Your task to perform on an android device: Open Google Image 0: 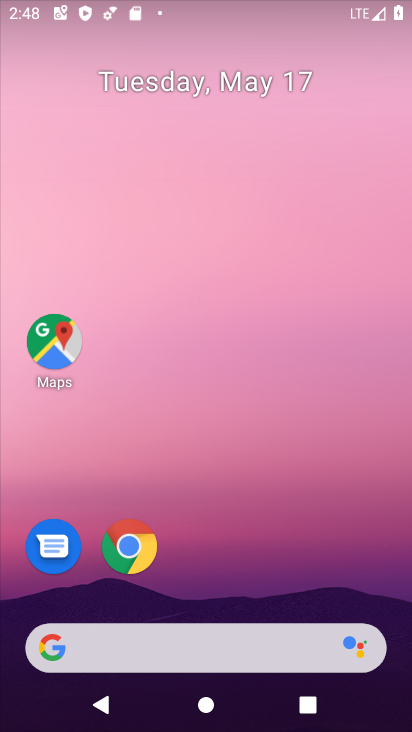
Step 0: press home button
Your task to perform on an android device: Open Google Image 1: 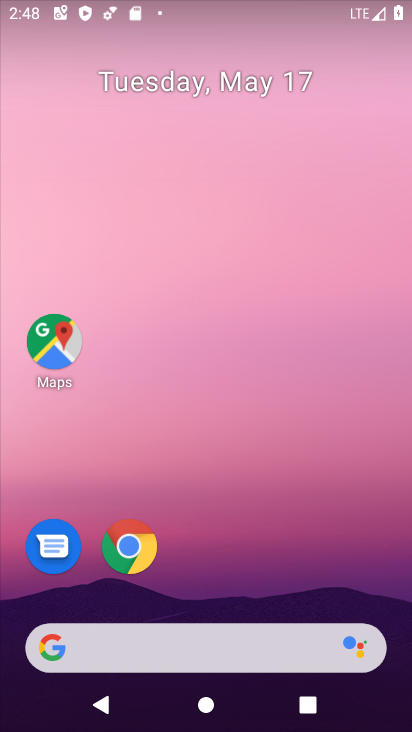
Step 1: click (224, 588)
Your task to perform on an android device: Open Google Image 2: 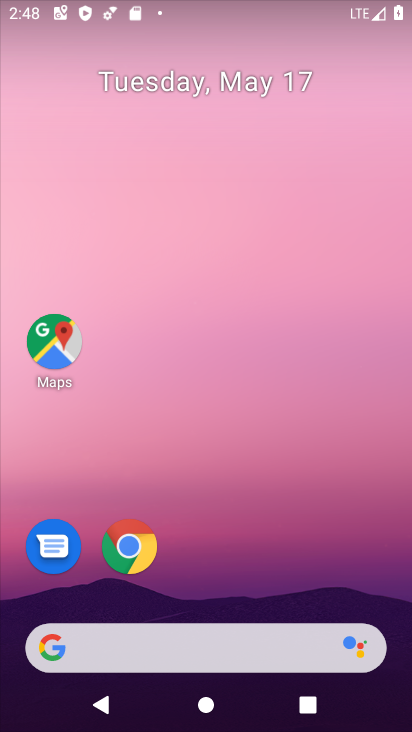
Step 2: drag from (224, 588) to (255, 164)
Your task to perform on an android device: Open Google Image 3: 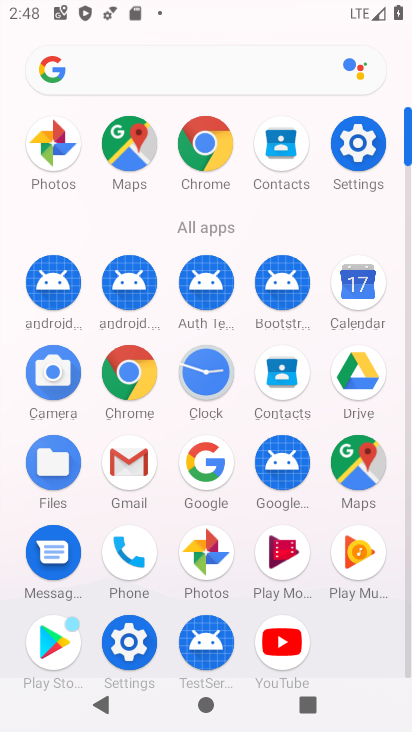
Step 3: click (195, 446)
Your task to perform on an android device: Open Google Image 4: 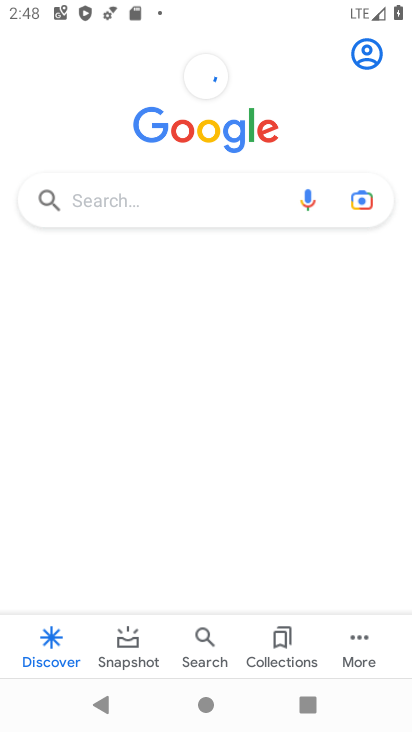
Step 4: task complete